Your task to perform on an android device: star an email in the gmail app Image 0: 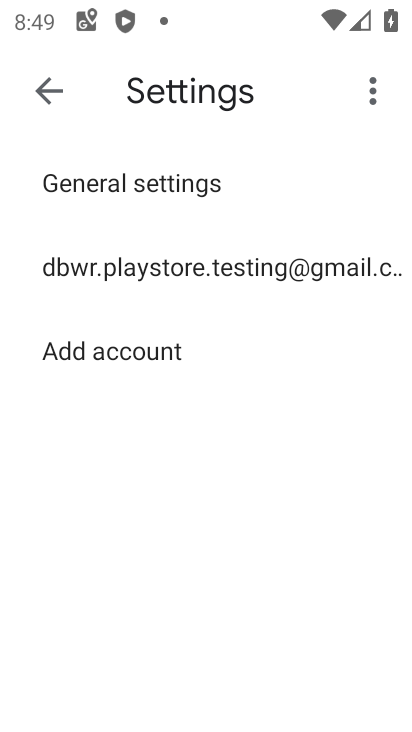
Step 0: press home button
Your task to perform on an android device: star an email in the gmail app Image 1: 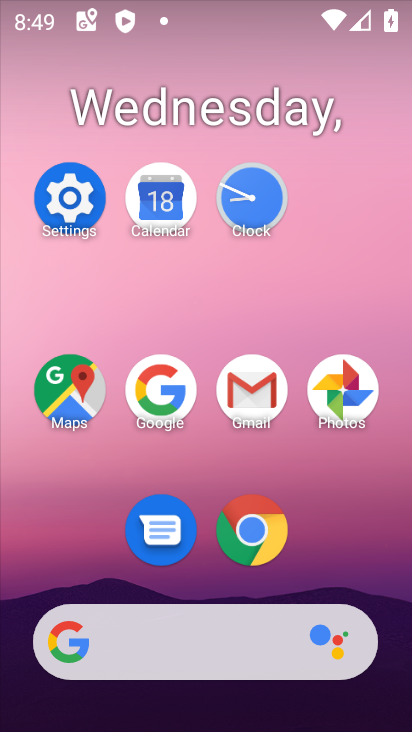
Step 1: click (231, 373)
Your task to perform on an android device: star an email in the gmail app Image 2: 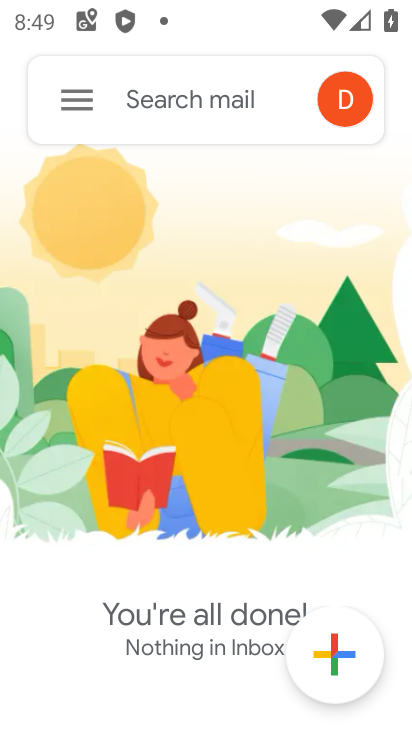
Step 2: click (94, 94)
Your task to perform on an android device: star an email in the gmail app Image 3: 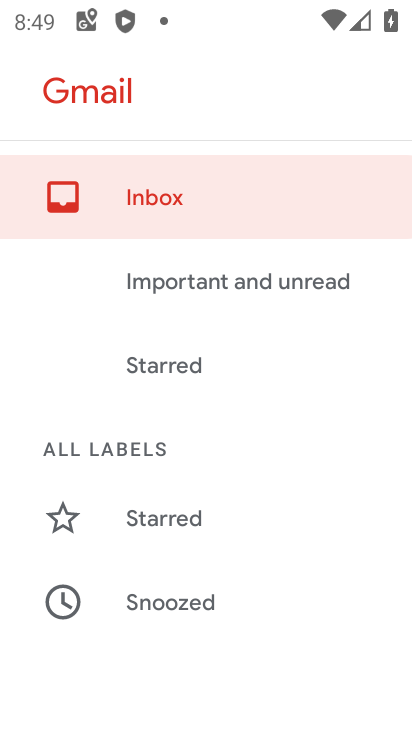
Step 3: drag from (245, 570) to (300, 105)
Your task to perform on an android device: star an email in the gmail app Image 4: 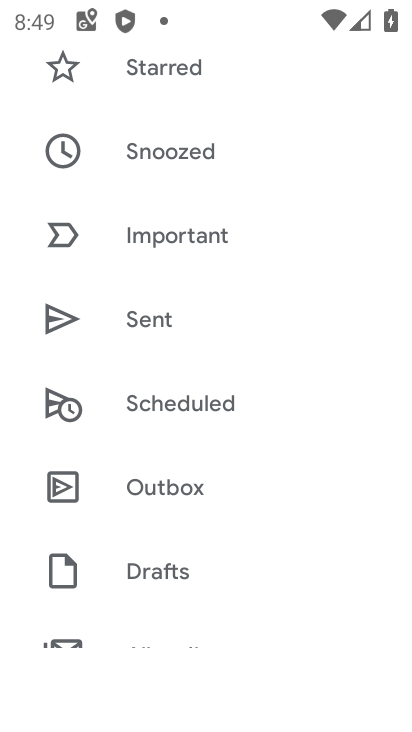
Step 4: drag from (234, 471) to (241, 140)
Your task to perform on an android device: star an email in the gmail app Image 5: 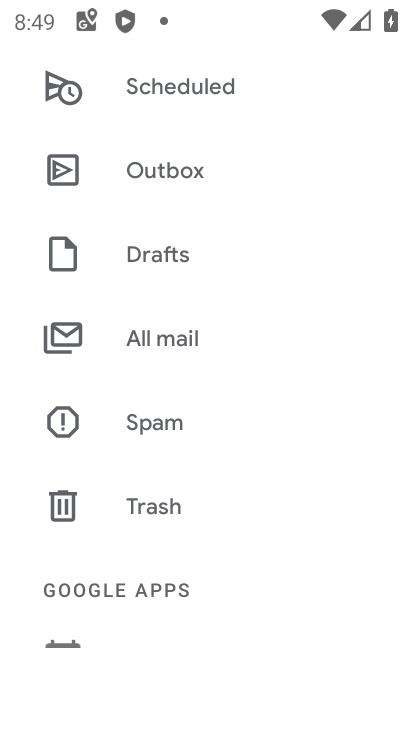
Step 5: click (203, 355)
Your task to perform on an android device: star an email in the gmail app Image 6: 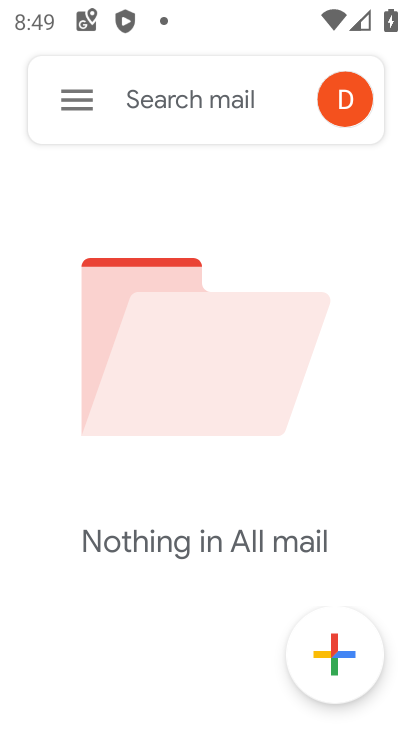
Step 6: task complete